Your task to perform on an android device: Open privacy settings Image 0: 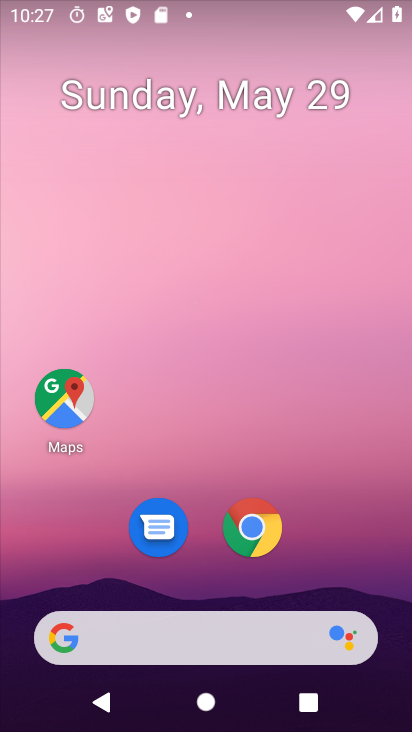
Step 0: drag from (362, 516) to (306, 98)
Your task to perform on an android device: Open privacy settings Image 1: 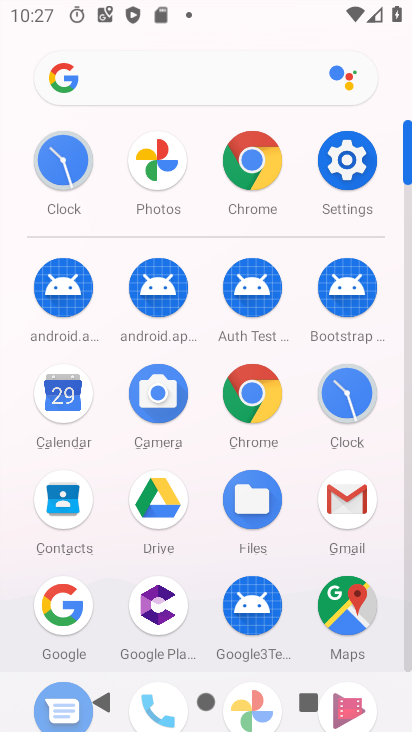
Step 1: click (347, 152)
Your task to perform on an android device: Open privacy settings Image 2: 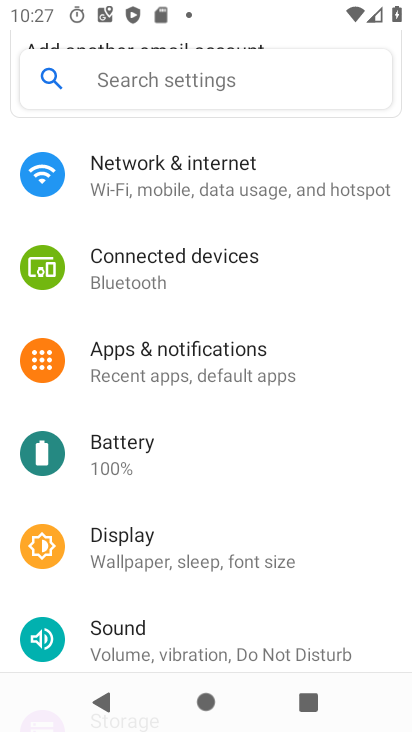
Step 2: drag from (221, 575) to (240, 143)
Your task to perform on an android device: Open privacy settings Image 3: 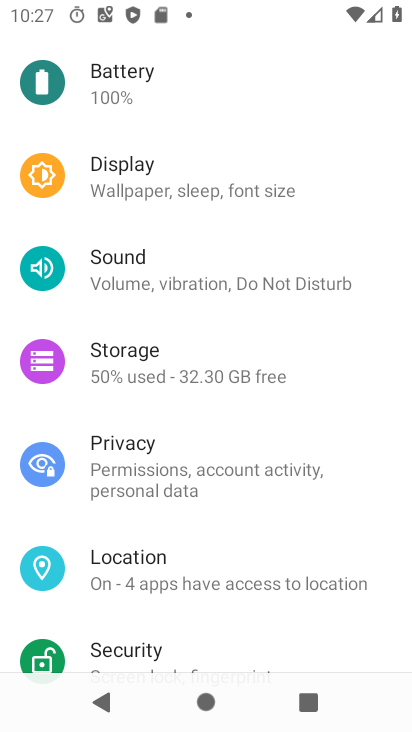
Step 3: click (217, 462)
Your task to perform on an android device: Open privacy settings Image 4: 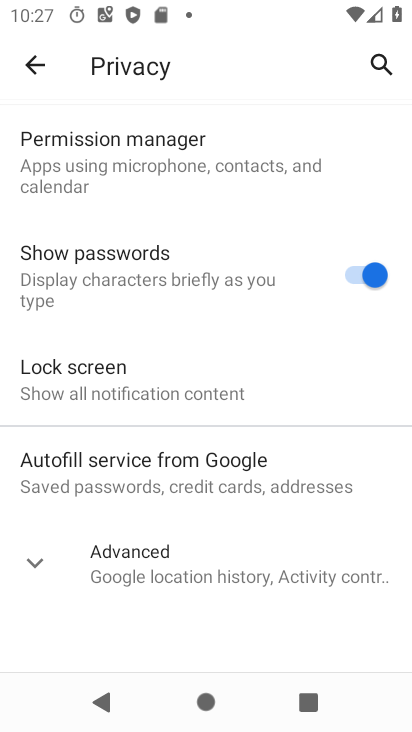
Step 4: task complete